Your task to perform on an android device: Go to Google Image 0: 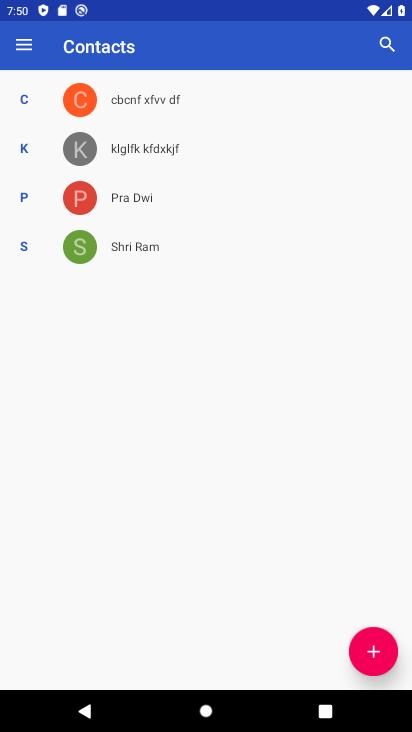
Step 0: press home button
Your task to perform on an android device: Go to Google Image 1: 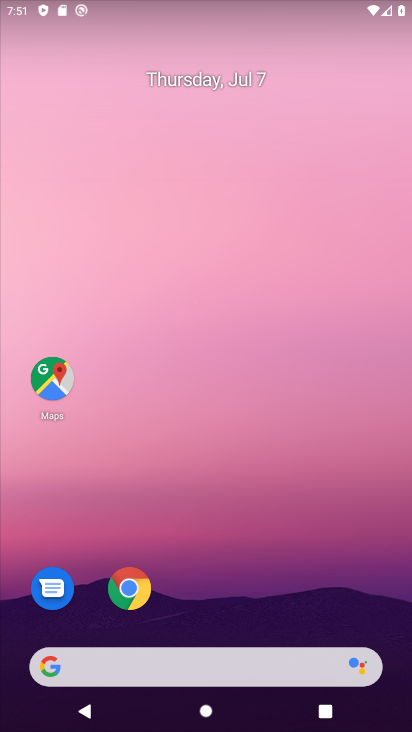
Step 1: drag from (277, 627) to (257, 142)
Your task to perform on an android device: Go to Google Image 2: 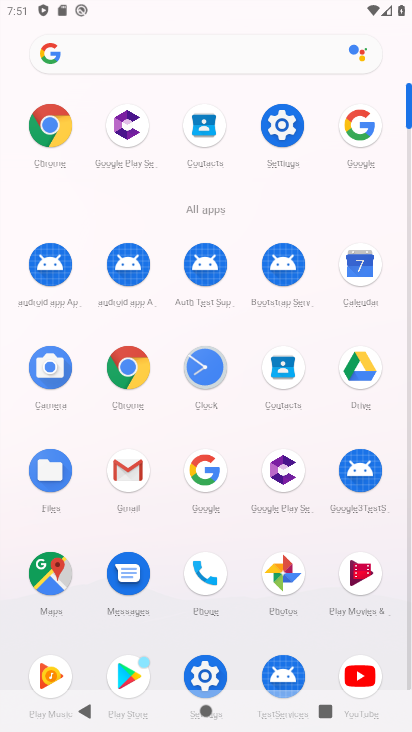
Step 2: click (366, 137)
Your task to perform on an android device: Go to Google Image 3: 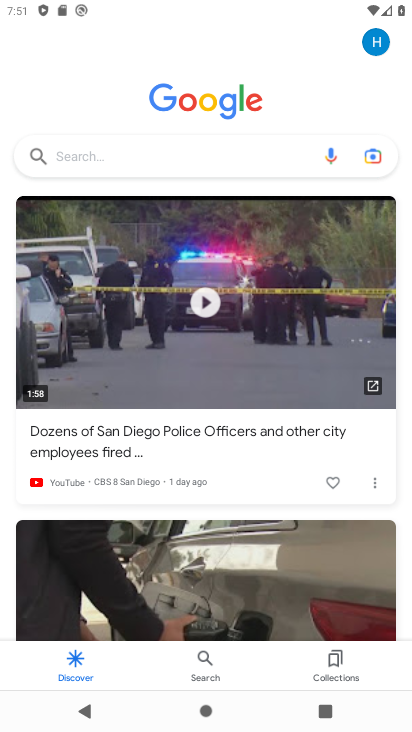
Step 3: task complete